Your task to perform on an android device: allow notifications from all sites in the chrome app Image 0: 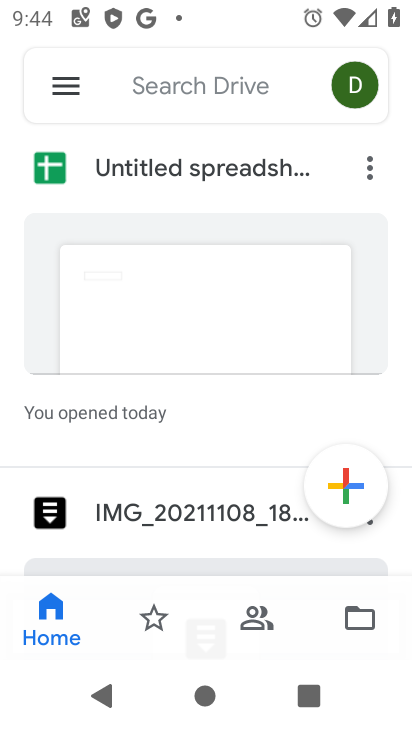
Step 0: press home button
Your task to perform on an android device: allow notifications from all sites in the chrome app Image 1: 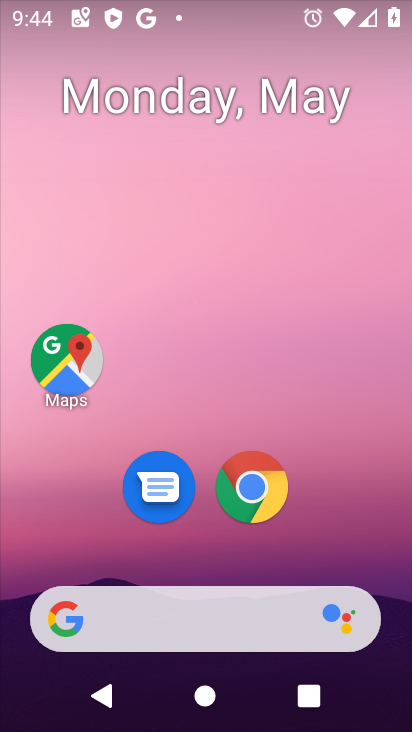
Step 1: click (257, 493)
Your task to perform on an android device: allow notifications from all sites in the chrome app Image 2: 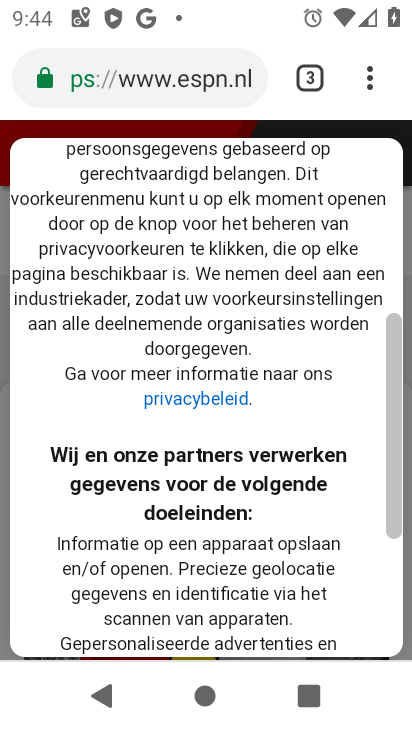
Step 2: click (382, 83)
Your task to perform on an android device: allow notifications from all sites in the chrome app Image 3: 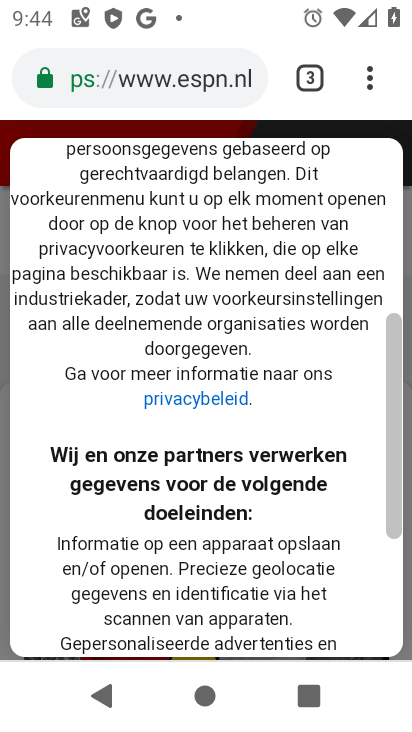
Step 3: click (379, 79)
Your task to perform on an android device: allow notifications from all sites in the chrome app Image 4: 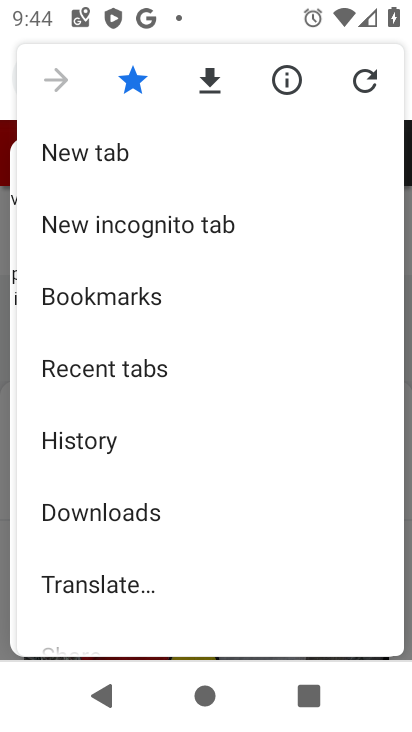
Step 4: drag from (95, 611) to (152, 269)
Your task to perform on an android device: allow notifications from all sites in the chrome app Image 5: 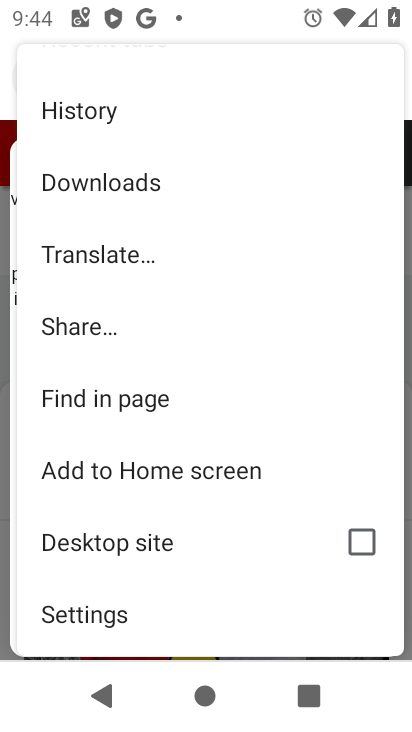
Step 5: drag from (85, 585) to (225, 225)
Your task to perform on an android device: allow notifications from all sites in the chrome app Image 6: 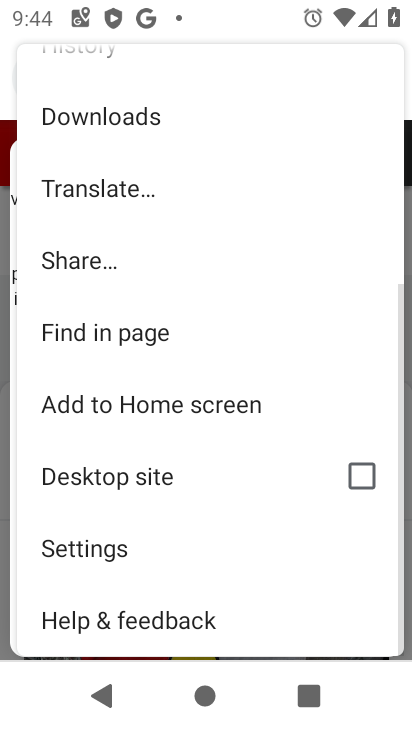
Step 6: drag from (209, 389) to (181, 621)
Your task to perform on an android device: allow notifications from all sites in the chrome app Image 7: 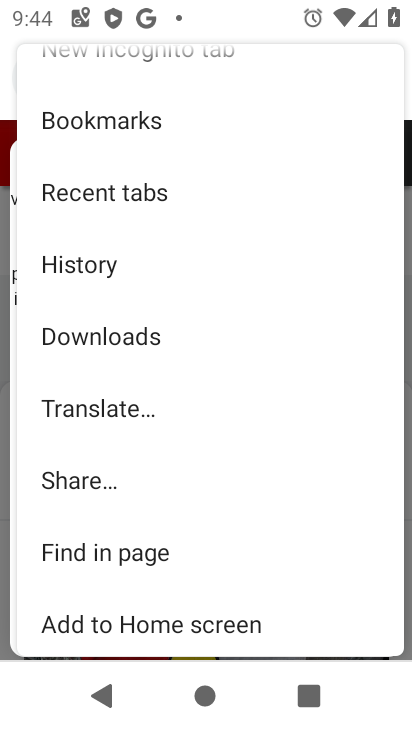
Step 7: drag from (158, 103) to (186, 608)
Your task to perform on an android device: allow notifications from all sites in the chrome app Image 8: 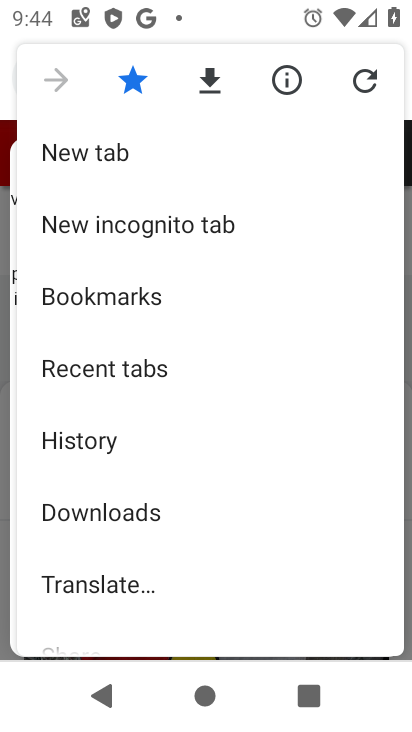
Step 8: drag from (145, 602) to (251, 131)
Your task to perform on an android device: allow notifications from all sites in the chrome app Image 9: 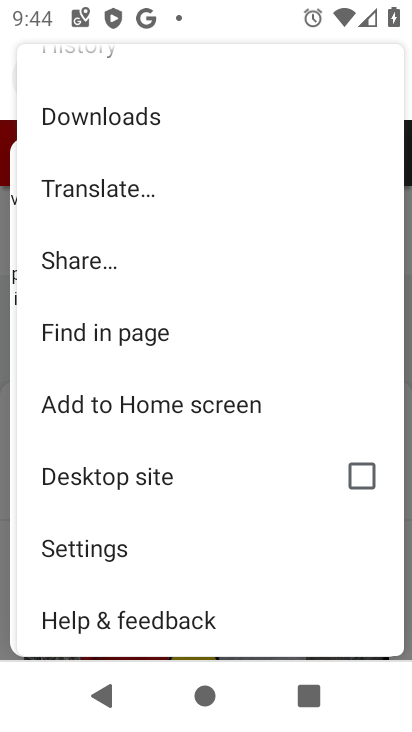
Step 9: drag from (108, 560) to (141, 331)
Your task to perform on an android device: allow notifications from all sites in the chrome app Image 10: 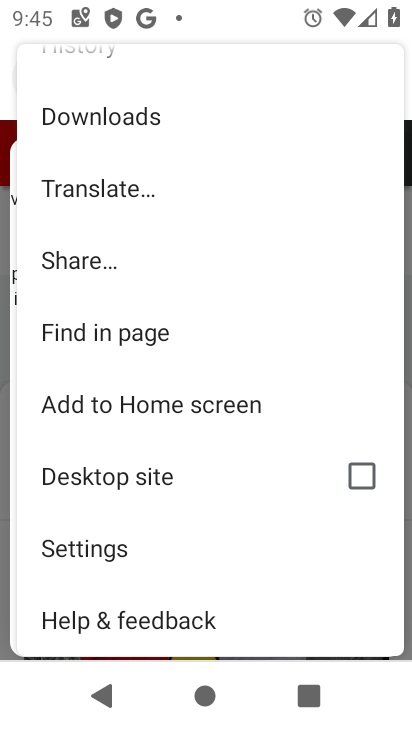
Step 10: click (63, 564)
Your task to perform on an android device: allow notifications from all sites in the chrome app Image 11: 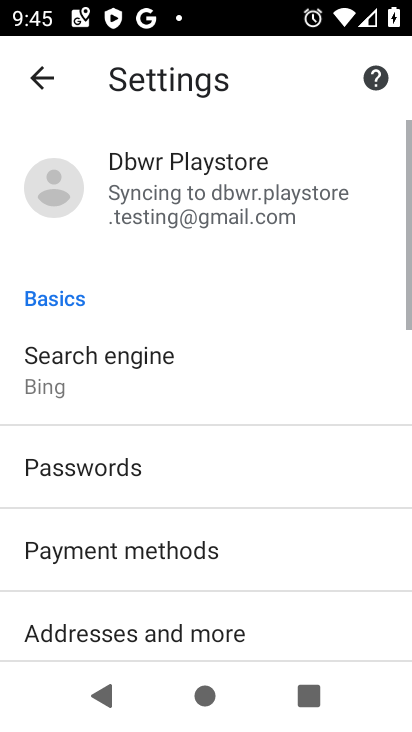
Step 11: drag from (63, 564) to (179, 116)
Your task to perform on an android device: allow notifications from all sites in the chrome app Image 12: 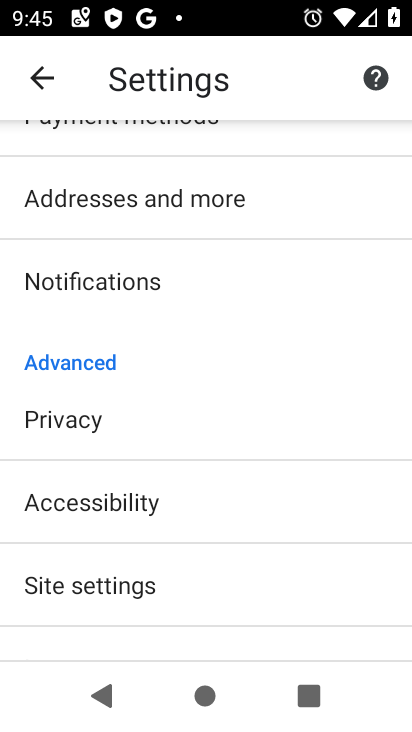
Step 12: click (70, 294)
Your task to perform on an android device: allow notifications from all sites in the chrome app Image 13: 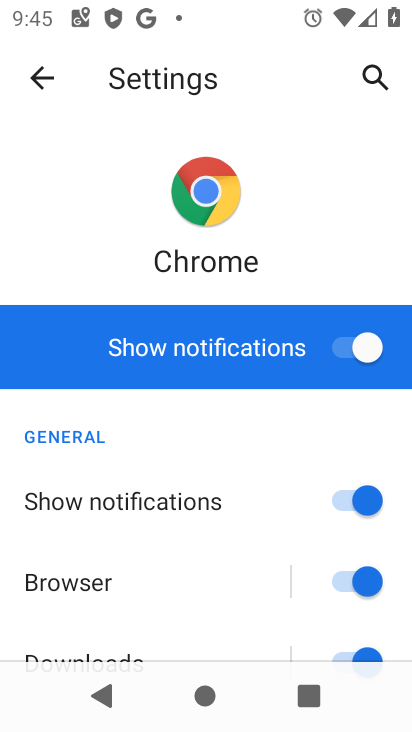
Step 13: task complete